Your task to perform on an android device: allow notifications from all sites in the chrome app Image 0: 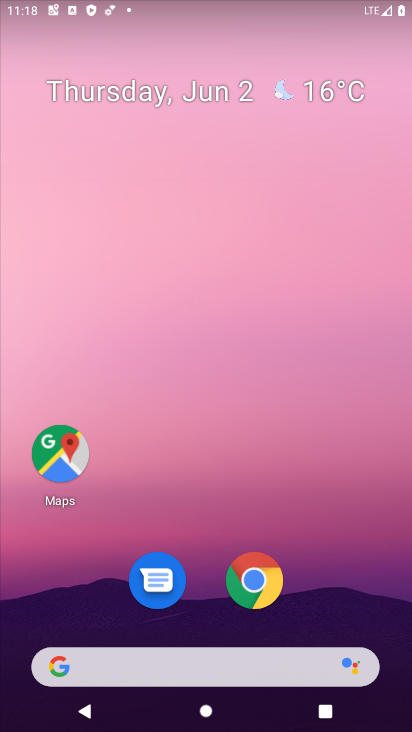
Step 0: drag from (233, 663) to (258, 324)
Your task to perform on an android device: allow notifications from all sites in the chrome app Image 1: 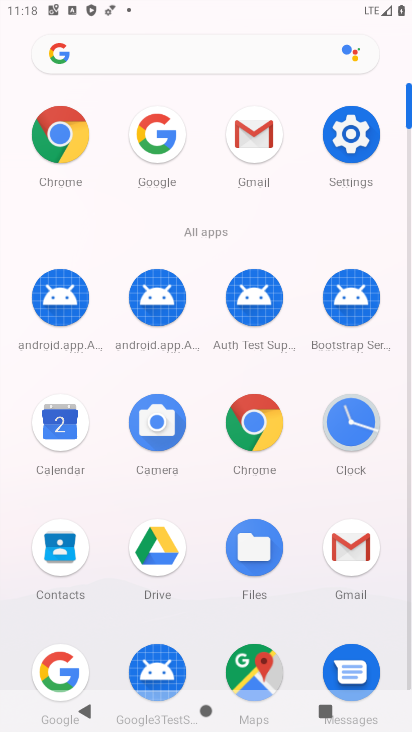
Step 1: click (260, 445)
Your task to perform on an android device: allow notifications from all sites in the chrome app Image 2: 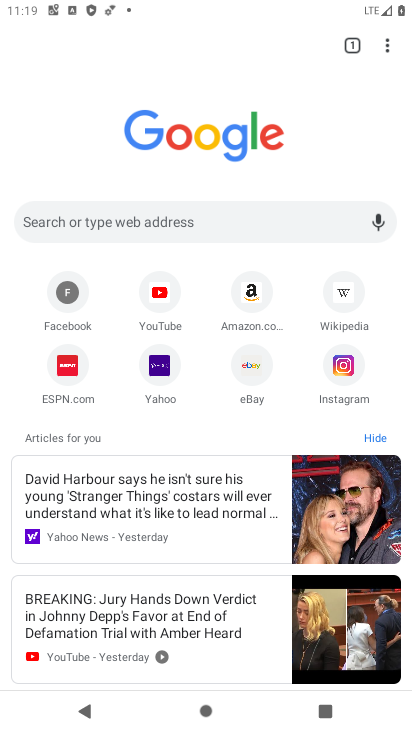
Step 2: click (397, 40)
Your task to perform on an android device: allow notifications from all sites in the chrome app Image 3: 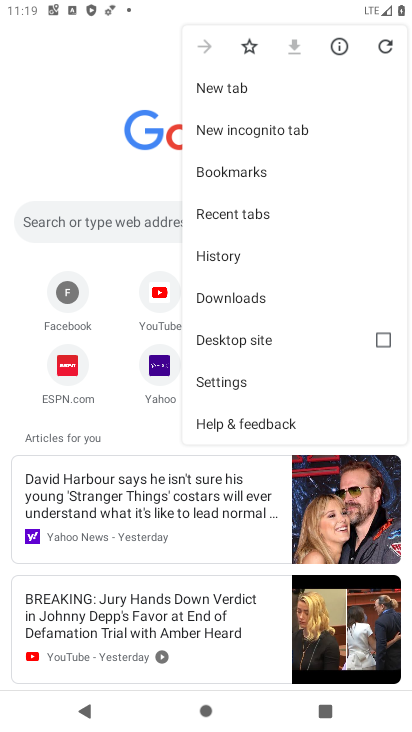
Step 3: click (238, 378)
Your task to perform on an android device: allow notifications from all sites in the chrome app Image 4: 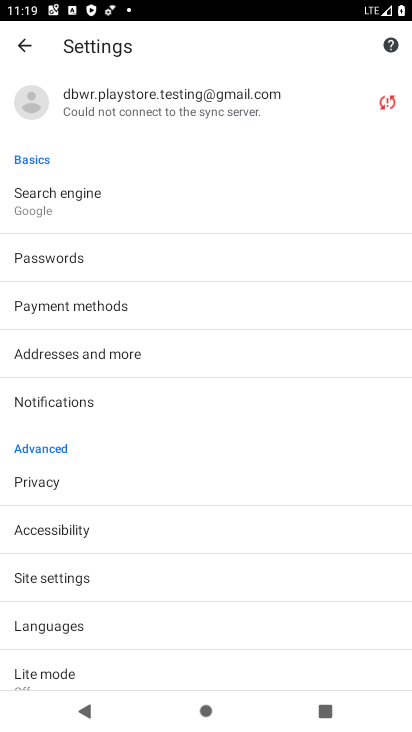
Step 4: click (97, 394)
Your task to perform on an android device: allow notifications from all sites in the chrome app Image 5: 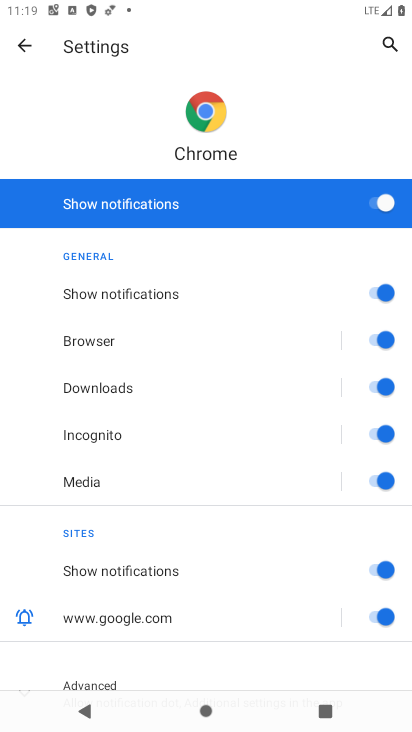
Step 5: task complete